Your task to perform on an android device: find which apps use the phone's location Image 0: 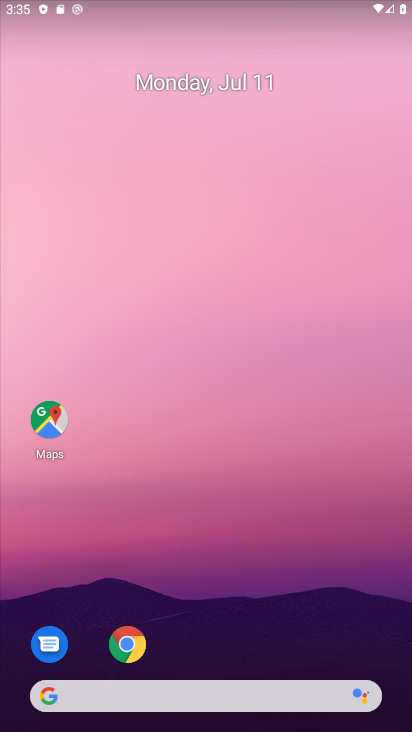
Step 0: drag from (211, 670) to (204, 96)
Your task to perform on an android device: find which apps use the phone's location Image 1: 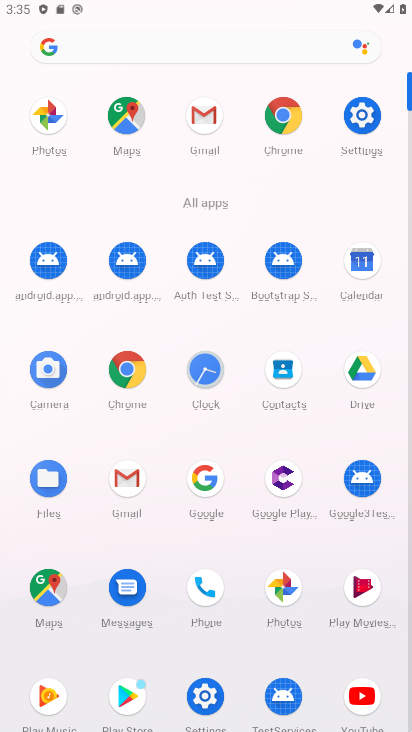
Step 1: click (362, 114)
Your task to perform on an android device: find which apps use the phone's location Image 2: 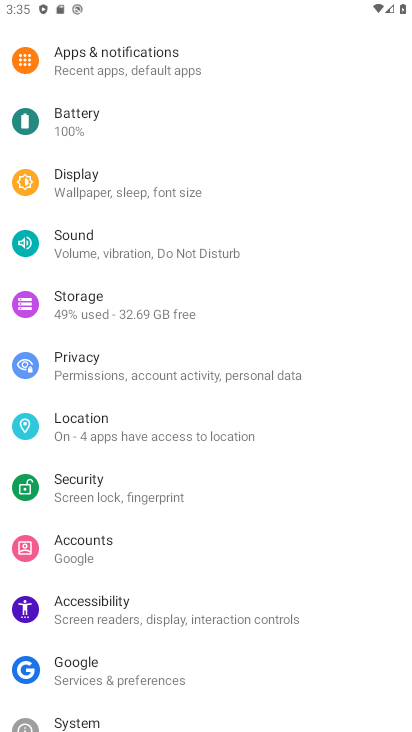
Step 2: click (131, 418)
Your task to perform on an android device: find which apps use the phone's location Image 3: 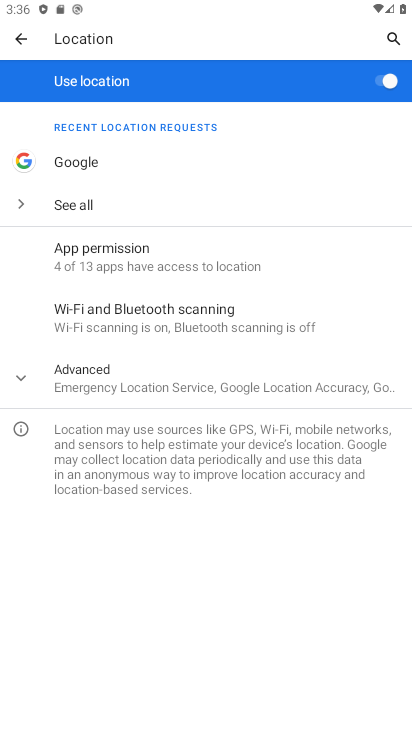
Step 3: click (19, 380)
Your task to perform on an android device: find which apps use the phone's location Image 4: 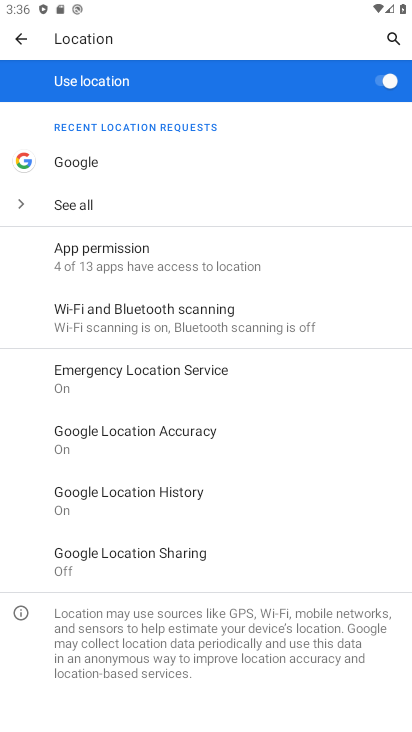
Step 4: click (90, 246)
Your task to perform on an android device: find which apps use the phone's location Image 5: 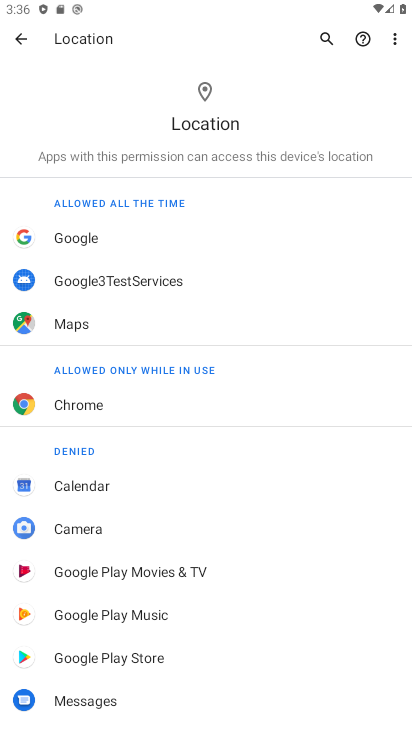
Step 5: task complete